Your task to perform on an android device: toggle airplane mode Image 0: 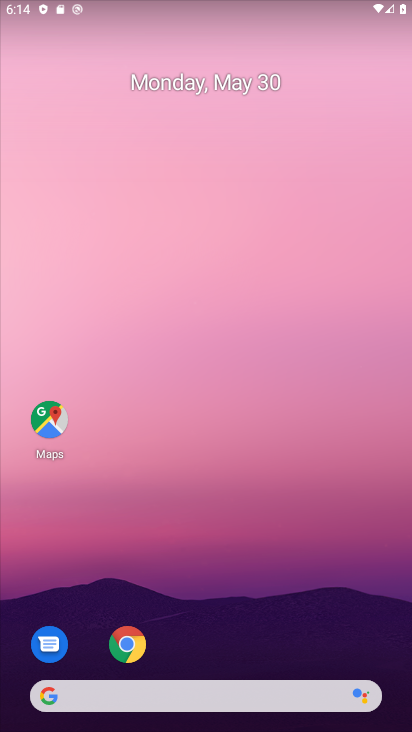
Step 0: drag from (227, 626) to (163, 32)
Your task to perform on an android device: toggle airplane mode Image 1: 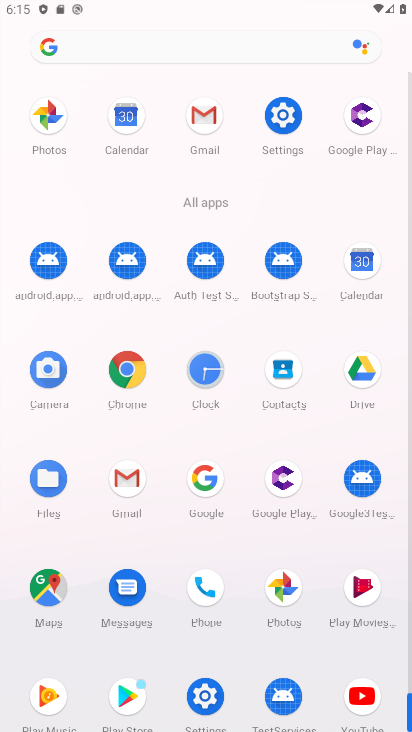
Step 1: click (279, 116)
Your task to perform on an android device: toggle airplane mode Image 2: 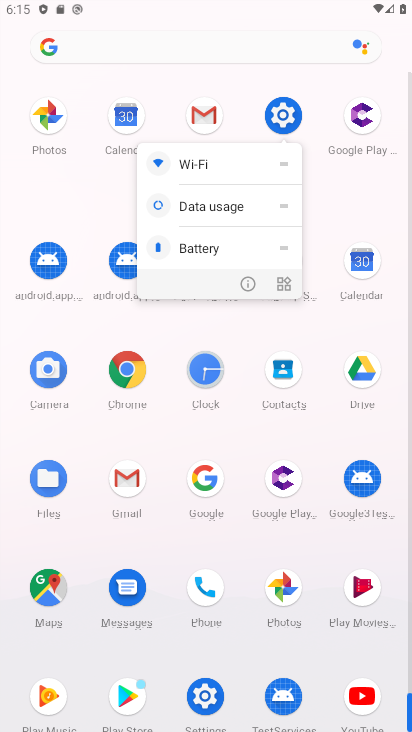
Step 2: click (278, 118)
Your task to perform on an android device: toggle airplane mode Image 3: 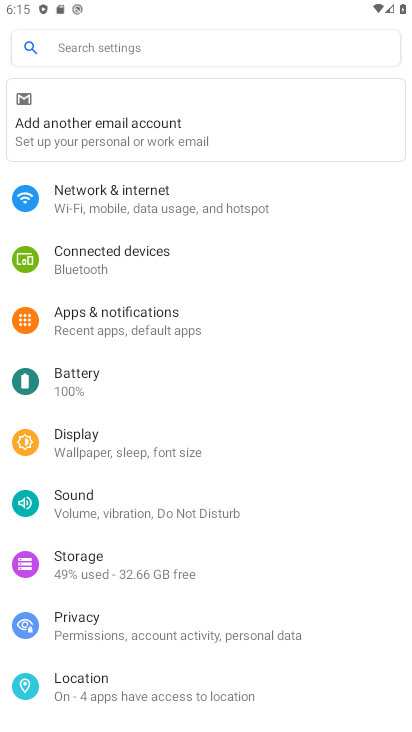
Step 3: click (137, 207)
Your task to perform on an android device: toggle airplane mode Image 4: 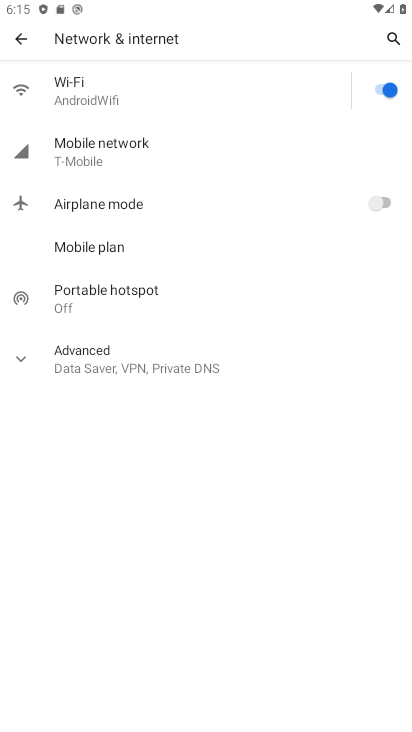
Step 4: click (395, 196)
Your task to perform on an android device: toggle airplane mode Image 5: 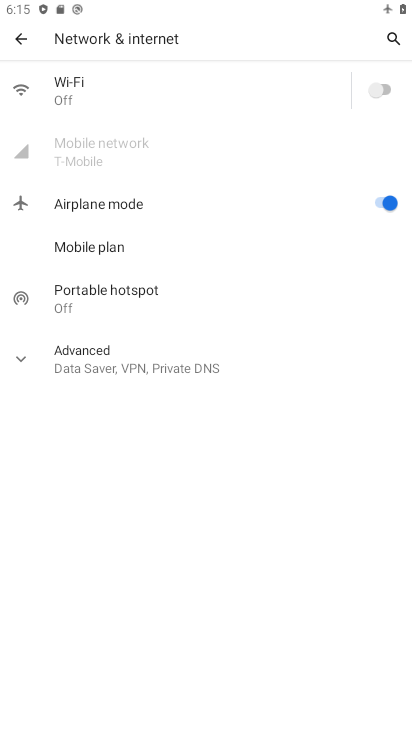
Step 5: task complete